Your task to perform on an android device: toggle notification dots Image 0: 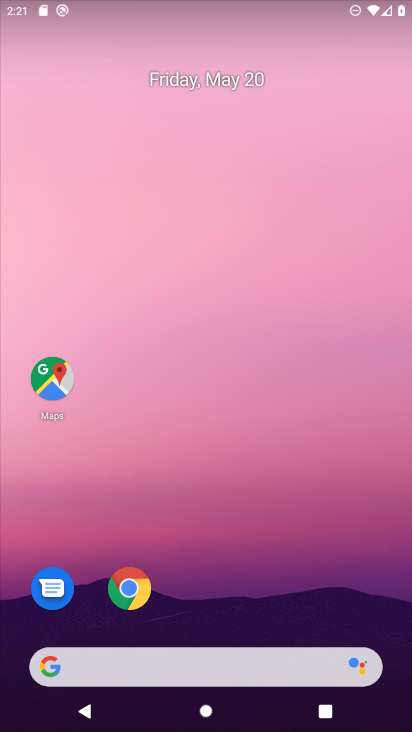
Step 0: drag from (384, 623) to (368, 106)
Your task to perform on an android device: toggle notification dots Image 1: 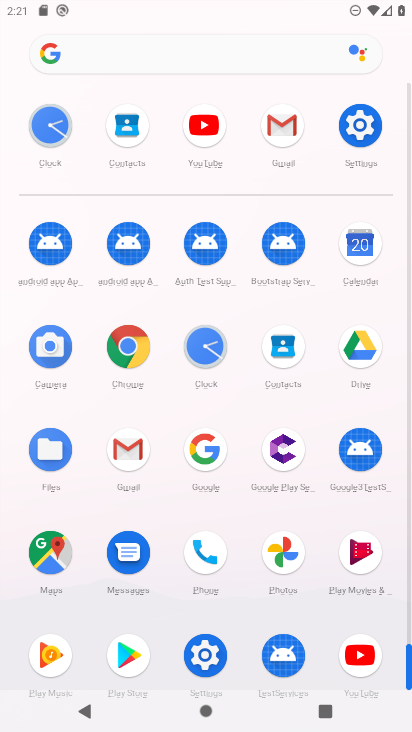
Step 1: click (203, 655)
Your task to perform on an android device: toggle notification dots Image 2: 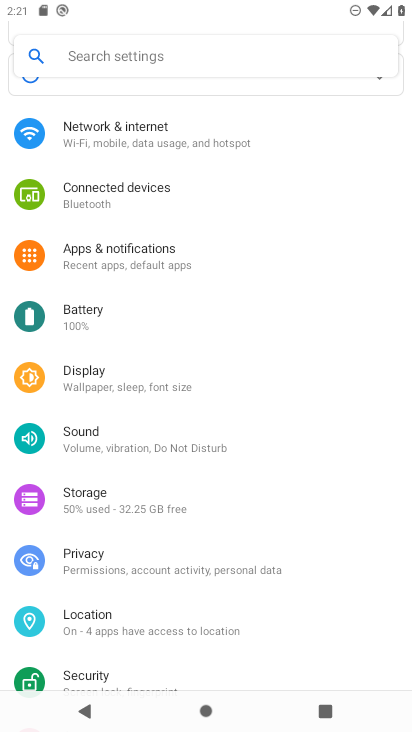
Step 2: click (112, 248)
Your task to perform on an android device: toggle notification dots Image 3: 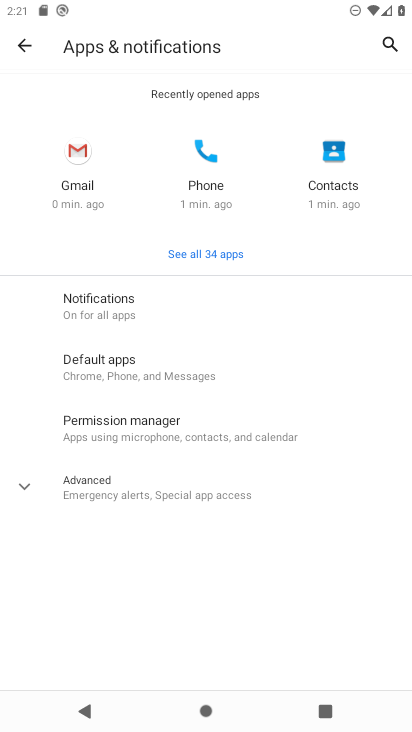
Step 3: click (98, 309)
Your task to perform on an android device: toggle notification dots Image 4: 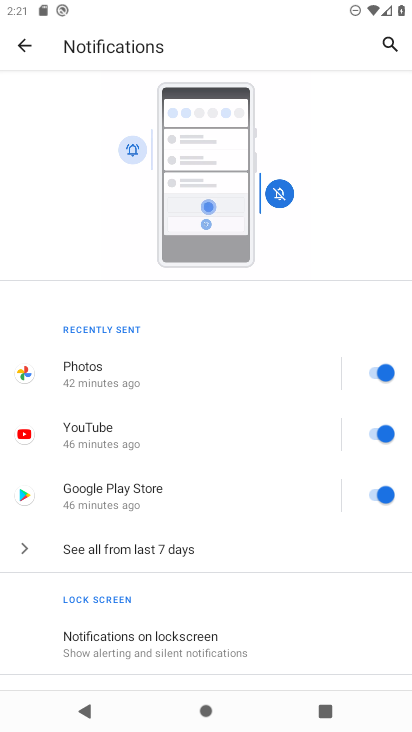
Step 4: drag from (286, 611) to (302, 235)
Your task to perform on an android device: toggle notification dots Image 5: 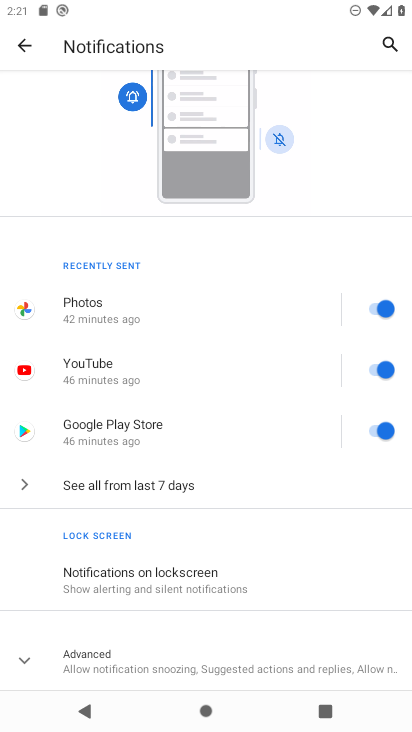
Step 5: click (19, 655)
Your task to perform on an android device: toggle notification dots Image 6: 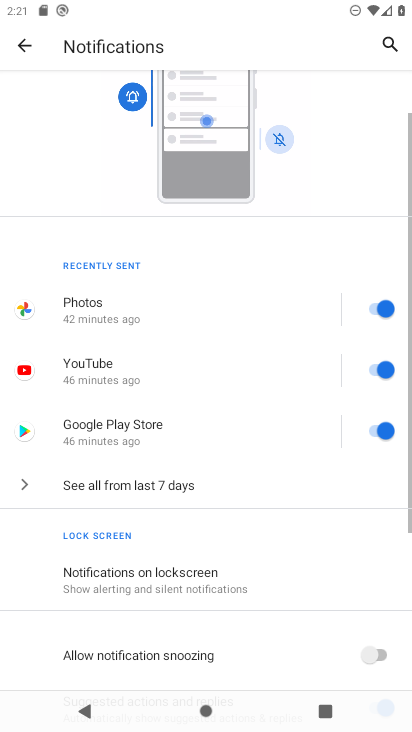
Step 6: drag from (297, 640) to (300, 143)
Your task to perform on an android device: toggle notification dots Image 7: 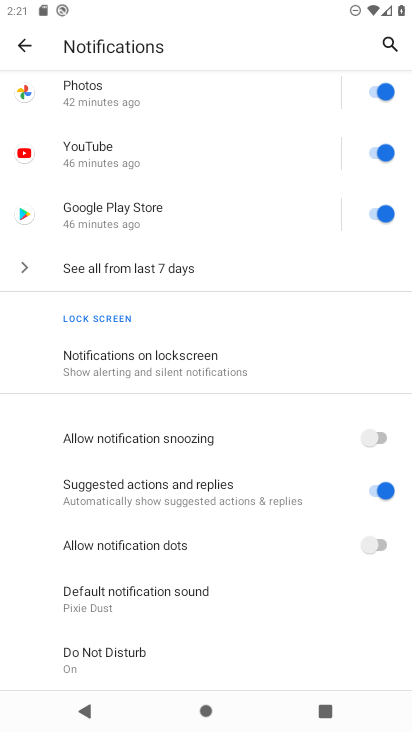
Step 7: click (377, 541)
Your task to perform on an android device: toggle notification dots Image 8: 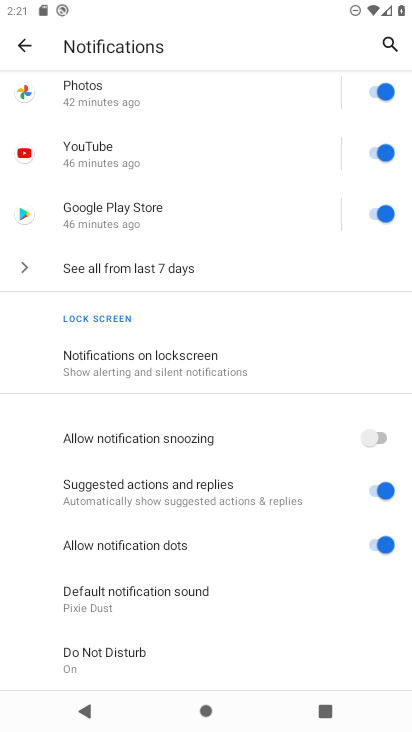
Step 8: task complete